Your task to perform on an android device: Clear the cart on bestbuy. Add "logitech g502" to the cart on bestbuy, then select checkout. Image 0: 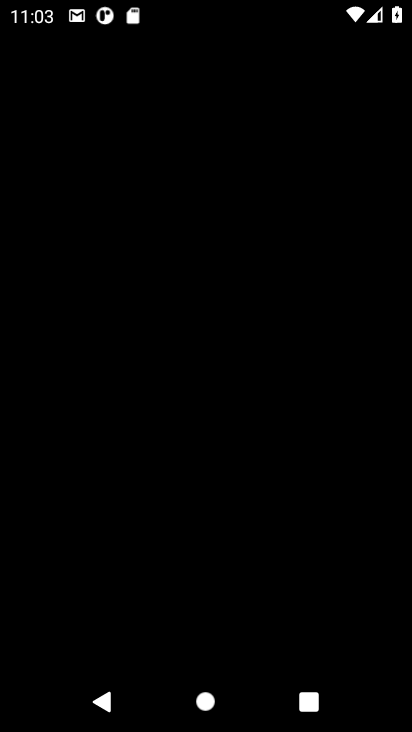
Step 0: press home button
Your task to perform on an android device: Clear the cart on bestbuy. Add "logitech g502" to the cart on bestbuy, then select checkout. Image 1: 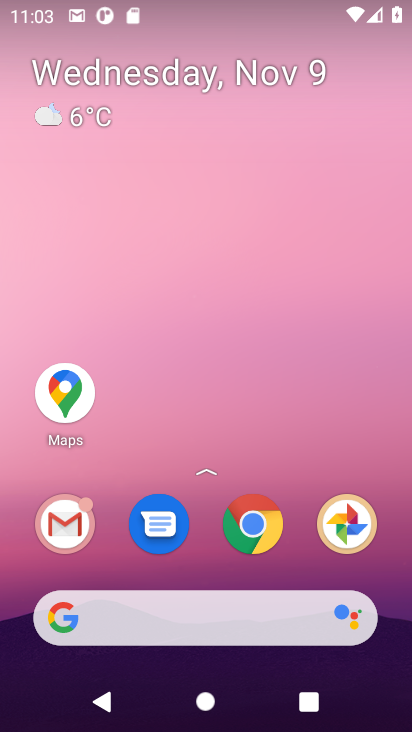
Step 1: click (270, 526)
Your task to perform on an android device: Clear the cart on bestbuy. Add "logitech g502" to the cart on bestbuy, then select checkout. Image 2: 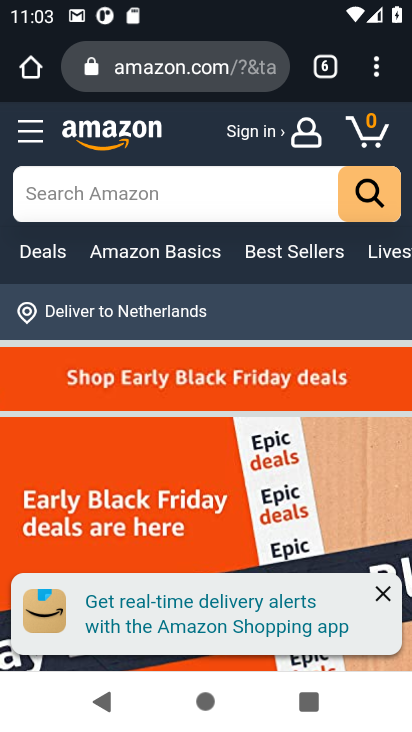
Step 2: click (332, 65)
Your task to perform on an android device: Clear the cart on bestbuy. Add "logitech g502" to the cart on bestbuy, then select checkout. Image 3: 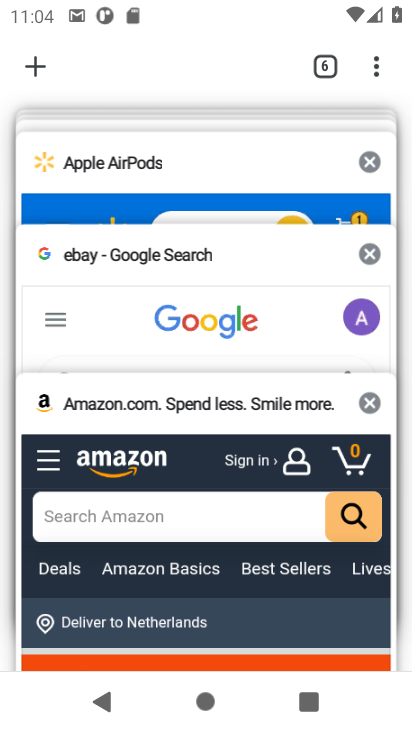
Step 3: drag from (283, 122) to (247, 303)
Your task to perform on an android device: Clear the cart on bestbuy. Add "logitech g502" to the cart on bestbuy, then select checkout. Image 4: 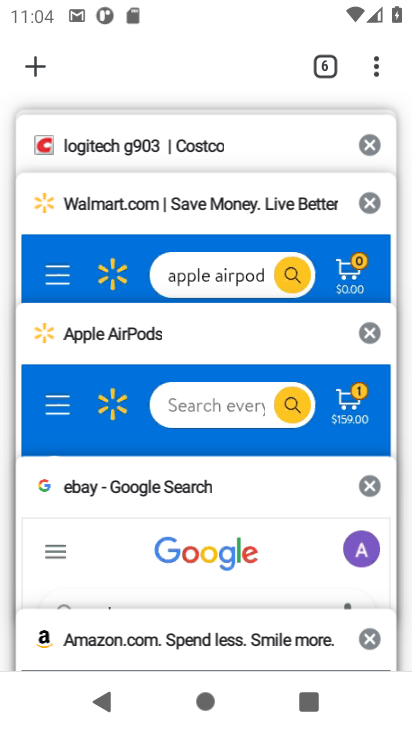
Step 4: click (366, 330)
Your task to perform on an android device: Clear the cart on bestbuy. Add "logitech g502" to the cart on bestbuy, then select checkout. Image 5: 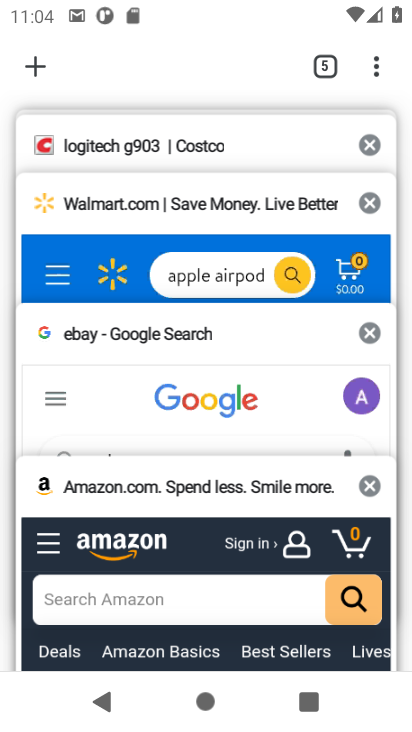
Step 5: click (203, 393)
Your task to perform on an android device: Clear the cart on bestbuy. Add "logitech g502" to the cart on bestbuy, then select checkout. Image 6: 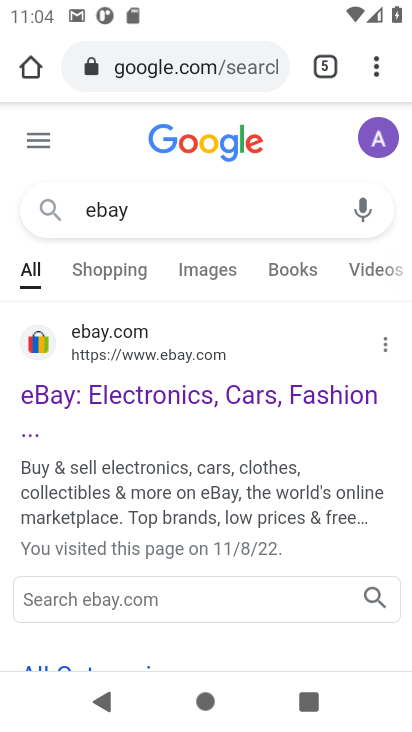
Step 6: click (130, 209)
Your task to perform on an android device: Clear the cart on bestbuy. Add "logitech g502" to the cart on bestbuy, then select checkout. Image 7: 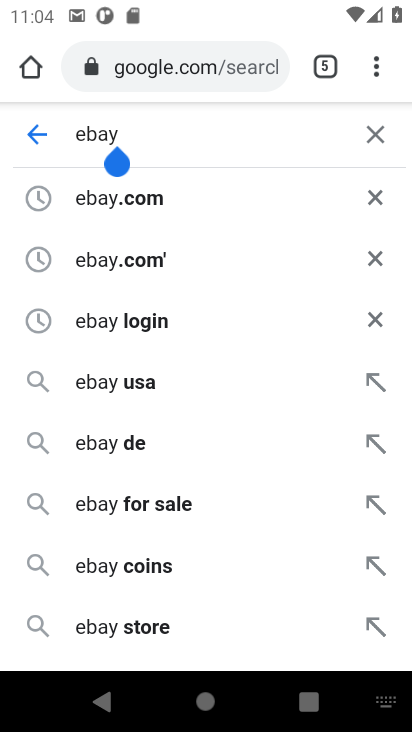
Step 7: click (376, 131)
Your task to perform on an android device: Clear the cart on bestbuy. Add "logitech g502" to the cart on bestbuy, then select checkout. Image 8: 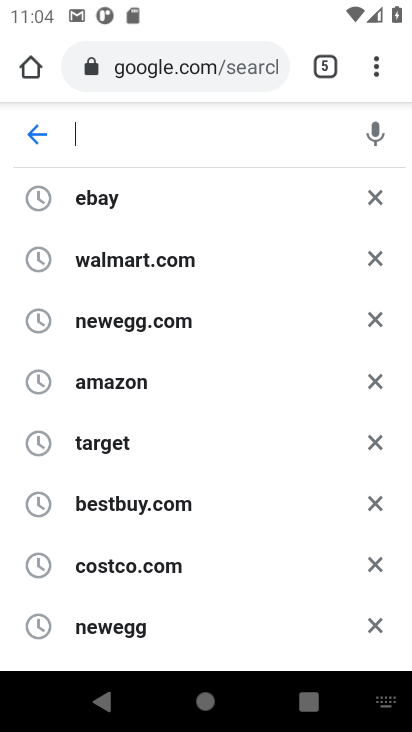
Step 8: click (129, 500)
Your task to perform on an android device: Clear the cart on bestbuy. Add "logitech g502" to the cart on bestbuy, then select checkout. Image 9: 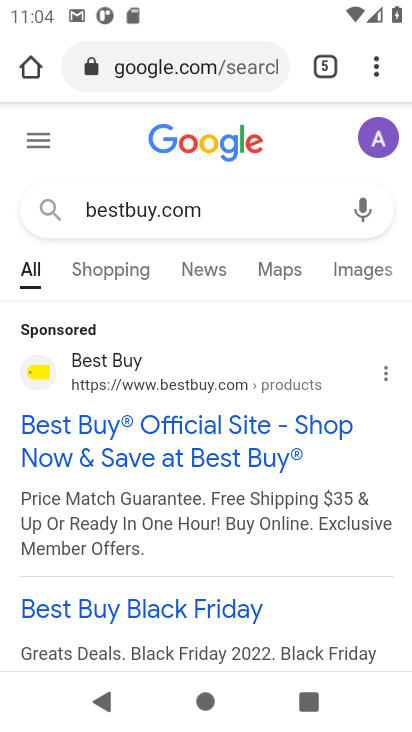
Step 9: click (101, 461)
Your task to perform on an android device: Clear the cart on bestbuy. Add "logitech g502" to the cart on bestbuy, then select checkout. Image 10: 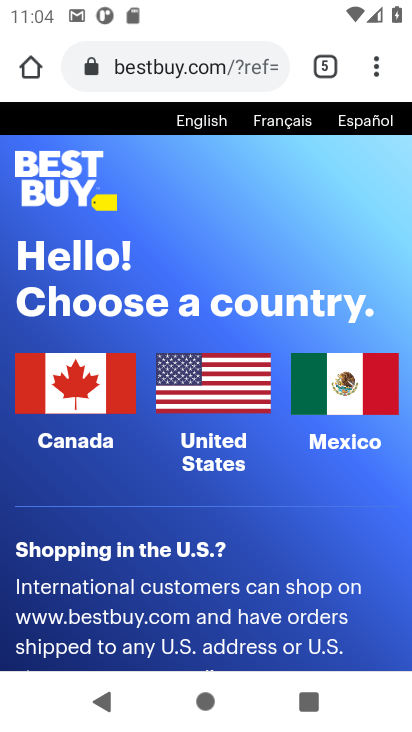
Step 10: click (219, 396)
Your task to perform on an android device: Clear the cart on bestbuy. Add "logitech g502" to the cart on bestbuy, then select checkout. Image 11: 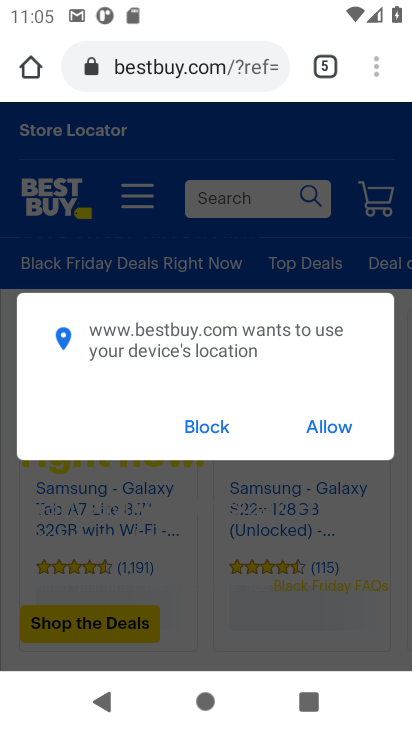
Step 11: click (216, 428)
Your task to perform on an android device: Clear the cart on bestbuy. Add "logitech g502" to the cart on bestbuy, then select checkout. Image 12: 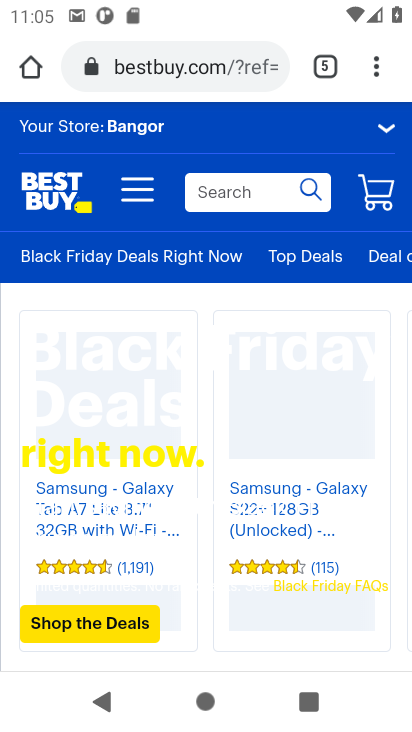
Step 12: click (219, 196)
Your task to perform on an android device: Clear the cart on bestbuy. Add "logitech g502" to the cart on bestbuy, then select checkout. Image 13: 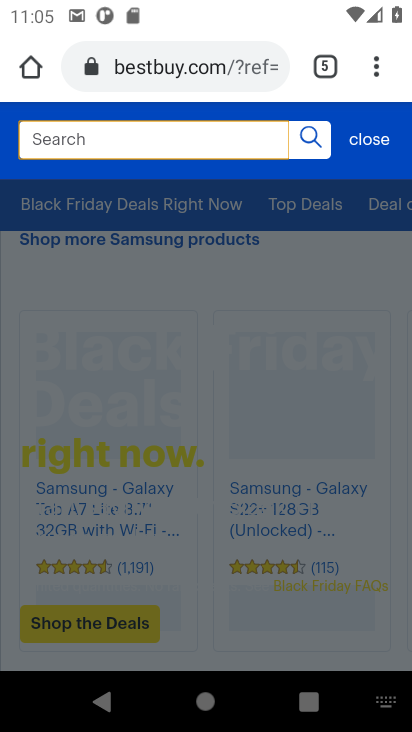
Step 13: type "logitech g502"
Your task to perform on an android device: Clear the cart on bestbuy. Add "logitech g502" to the cart on bestbuy, then select checkout. Image 14: 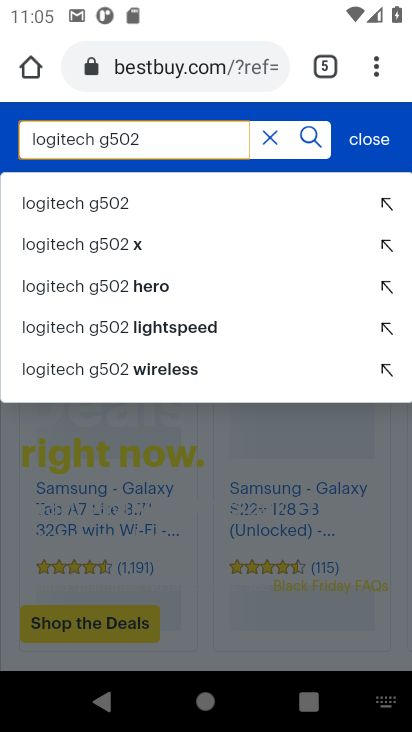
Step 14: click (96, 195)
Your task to perform on an android device: Clear the cart on bestbuy. Add "logitech g502" to the cart on bestbuy, then select checkout. Image 15: 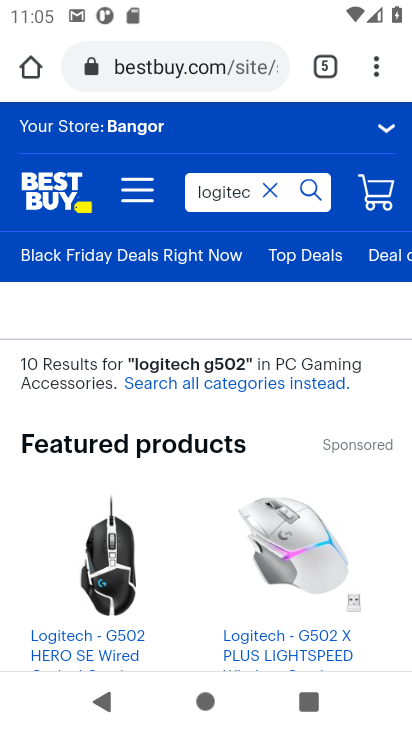
Step 15: drag from (224, 561) to (247, 137)
Your task to perform on an android device: Clear the cart on bestbuy. Add "logitech g502" to the cart on bestbuy, then select checkout. Image 16: 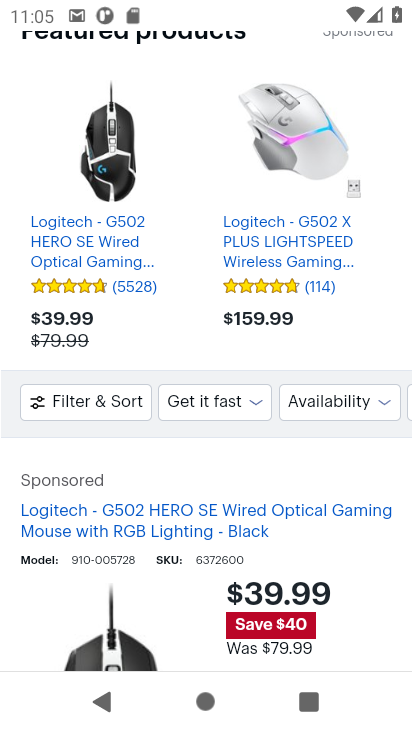
Step 16: drag from (313, 542) to (312, 166)
Your task to perform on an android device: Clear the cart on bestbuy. Add "logitech g502" to the cart on bestbuy, then select checkout. Image 17: 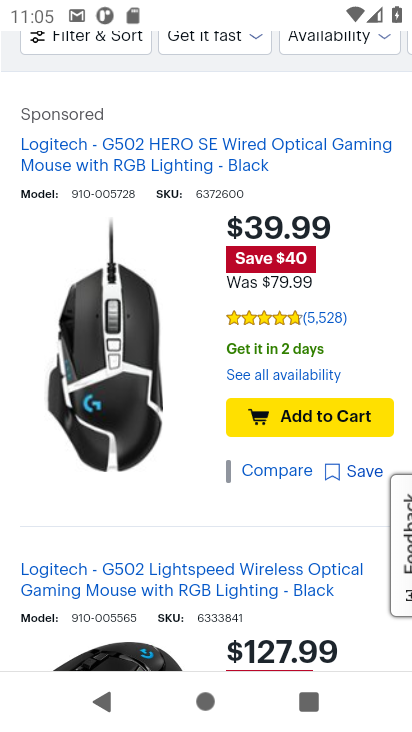
Step 17: click (334, 407)
Your task to perform on an android device: Clear the cart on bestbuy. Add "logitech g502" to the cart on bestbuy, then select checkout. Image 18: 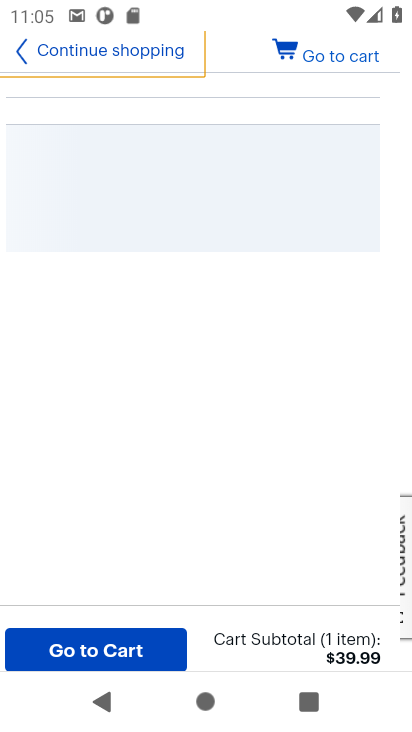
Step 18: click (119, 641)
Your task to perform on an android device: Clear the cart on bestbuy. Add "logitech g502" to the cart on bestbuy, then select checkout. Image 19: 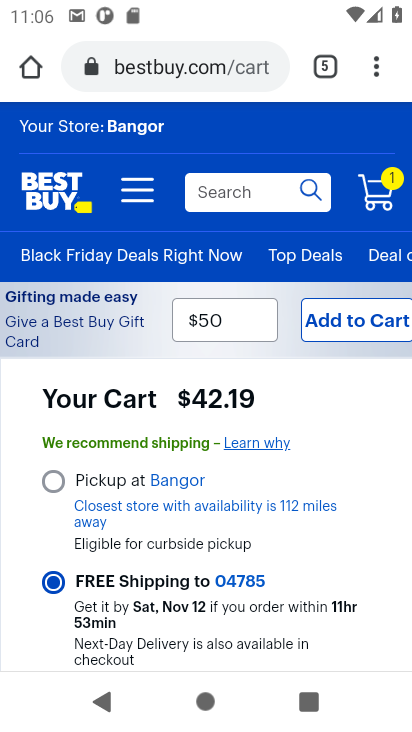
Step 19: click (382, 196)
Your task to perform on an android device: Clear the cart on bestbuy. Add "logitech g502" to the cart on bestbuy, then select checkout. Image 20: 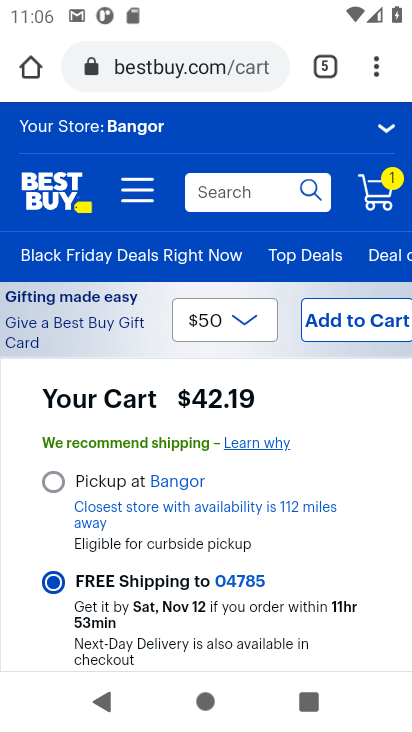
Step 20: drag from (224, 587) to (255, 193)
Your task to perform on an android device: Clear the cart on bestbuy. Add "logitech g502" to the cart on bestbuy, then select checkout. Image 21: 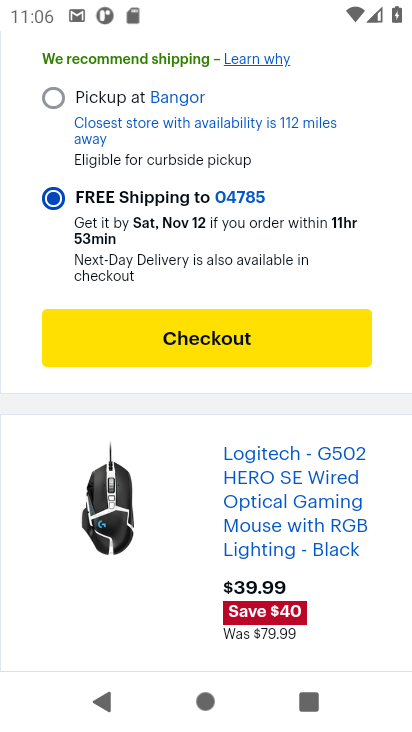
Step 21: click (259, 335)
Your task to perform on an android device: Clear the cart on bestbuy. Add "logitech g502" to the cart on bestbuy, then select checkout. Image 22: 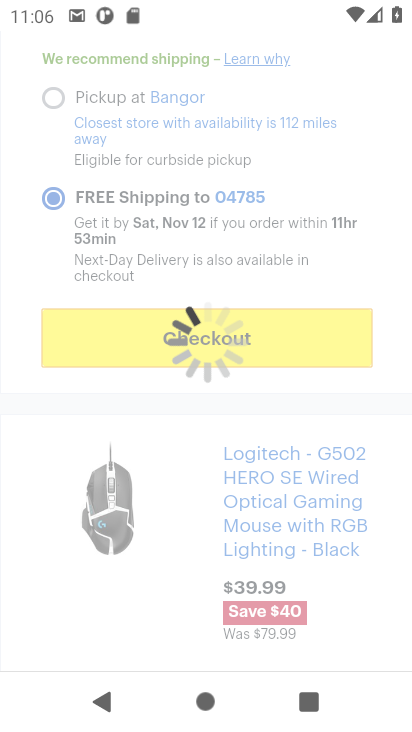
Step 22: task complete